Your task to perform on an android device: turn on notifications settings in the gmail app Image 0: 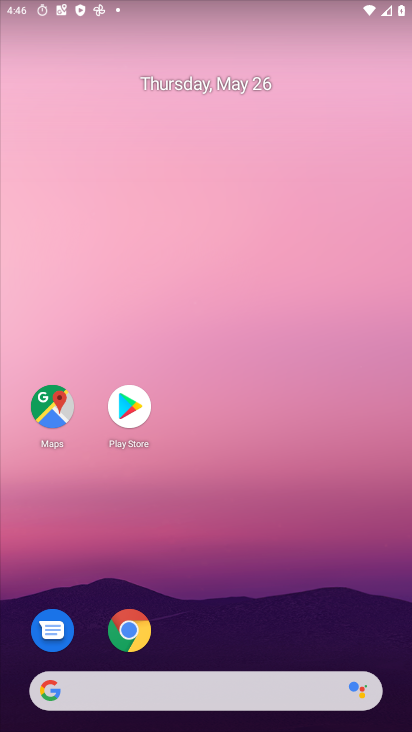
Step 0: drag from (254, 625) to (229, 108)
Your task to perform on an android device: turn on notifications settings in the gmail app Image 1: 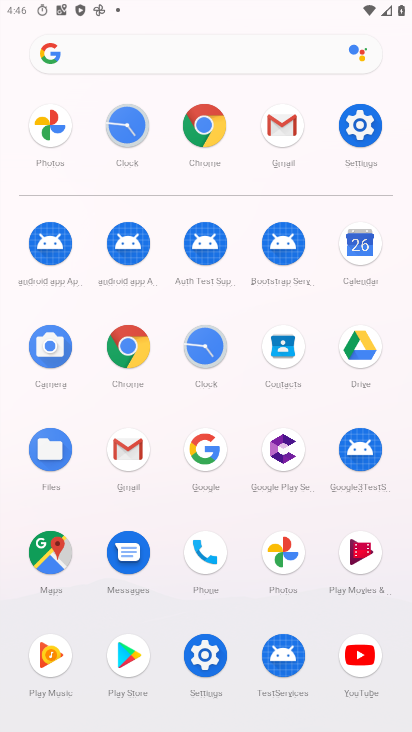
Step 1: click (283, 124)
Your task to perform on an android device: turn on notifications settings in the gmail app Image 2: 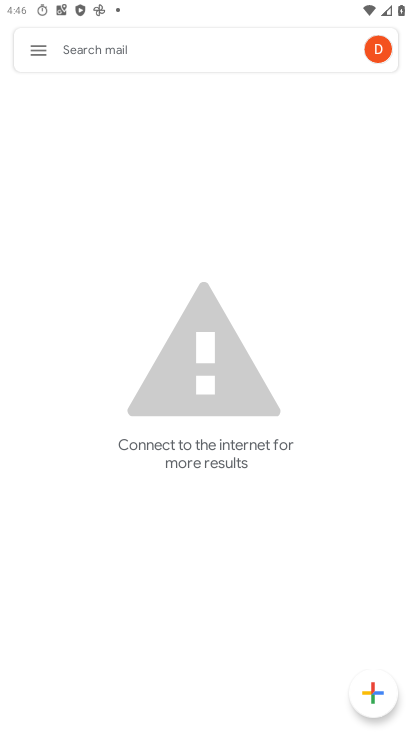
Step 2: click (39, 52)
Your task to perform on an android device: turn on notifications settings in the gmail app Image 3: 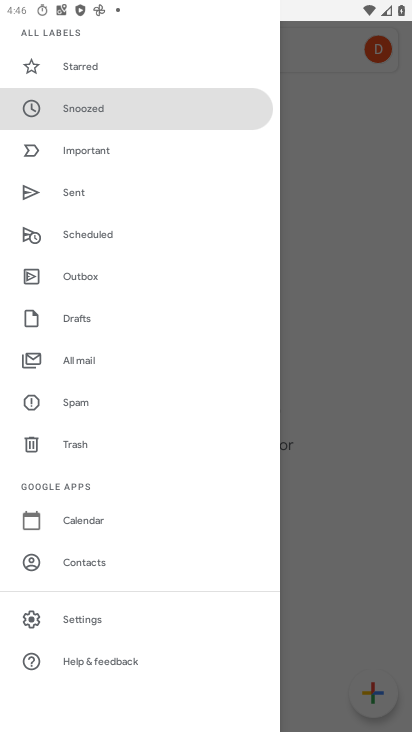
Step 3: click (111, 623)
Your task to perform on an android device: turn on notifications settings in the gmail app Image 4: 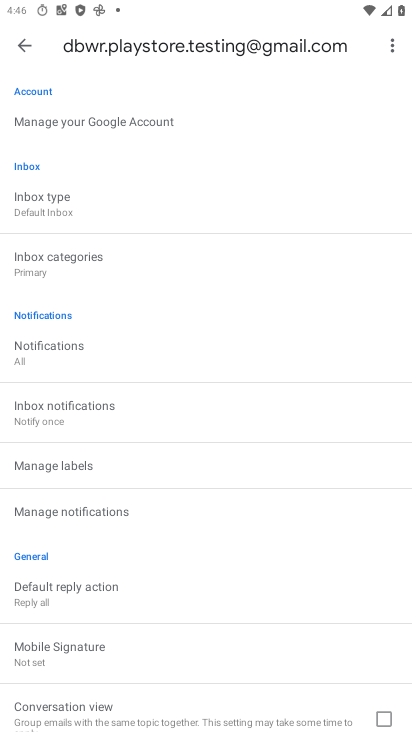
Step 4: click (122, 503)
Your task to perform on an android device: turn on notifications settings in the gmail app Image 5: 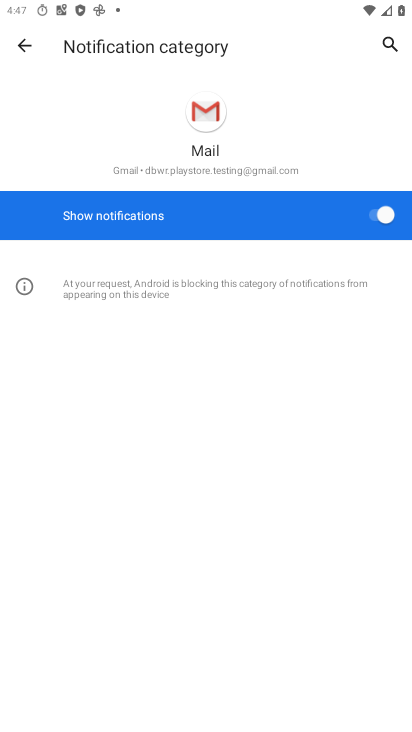
Step 5: task complete